Your task to perform on an android device: Search for seafood restaurants on Google Maps Image 0: 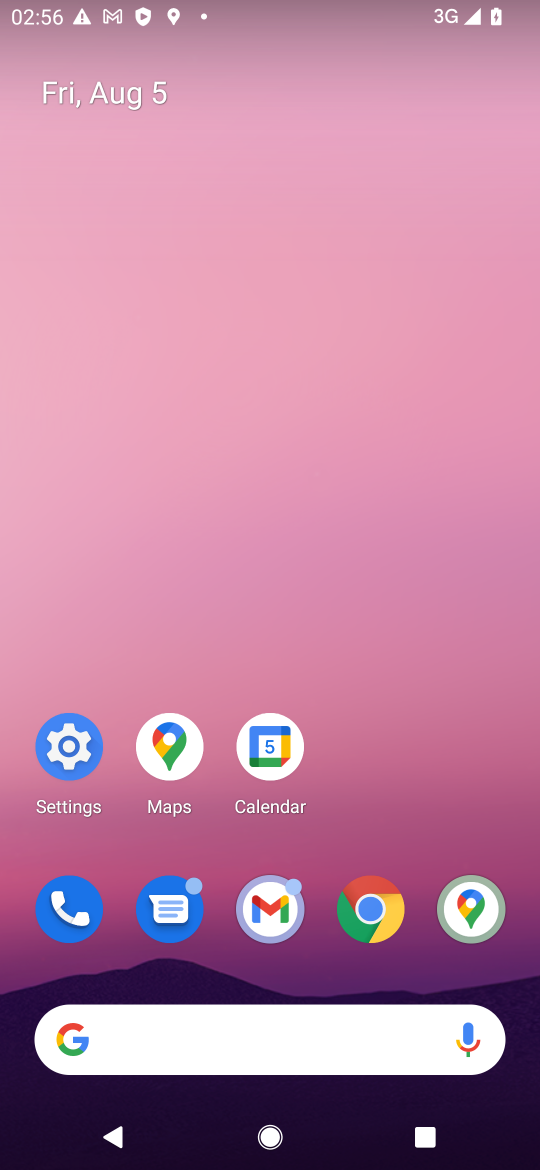
Step 0: click (155, 742)
Your task to perform on an android device: Search for seafood restaurants on Google Maps Image 1: 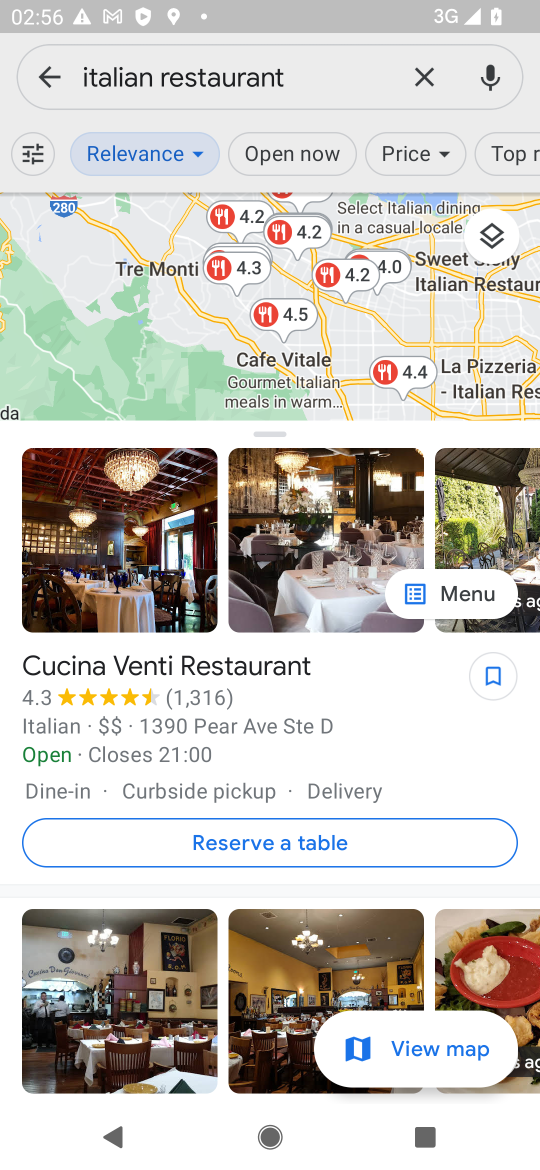
Step 1: click (49, 73)
Your task to perform on an android device: Search for seafood restaurants on Google Maps Image 2: 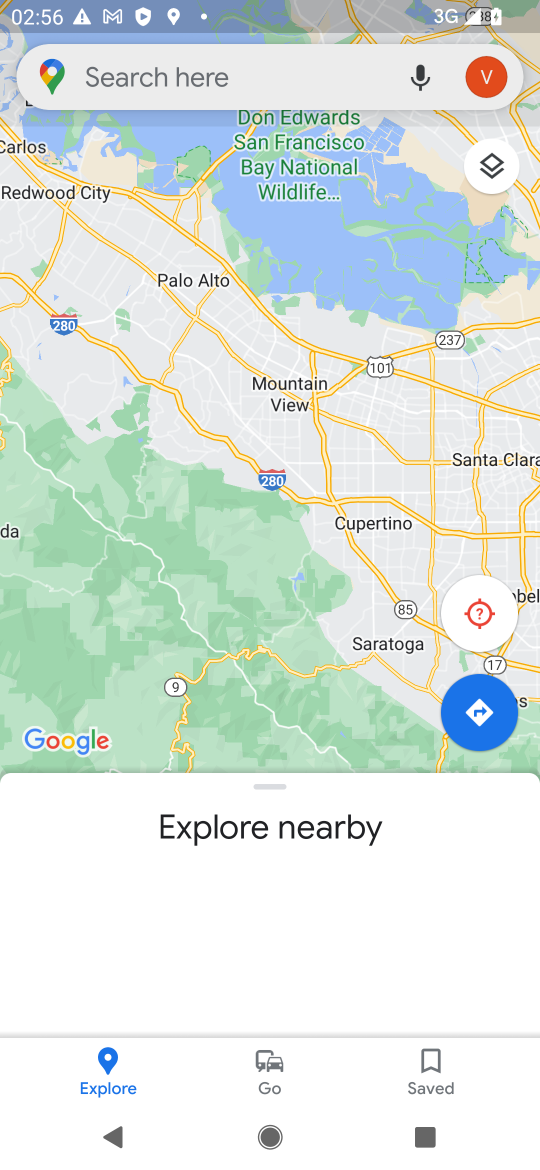
Step 2: click (287, 72)
Your task to perform on an android device: Search for seafood restaurants on Google Maps Image 3: 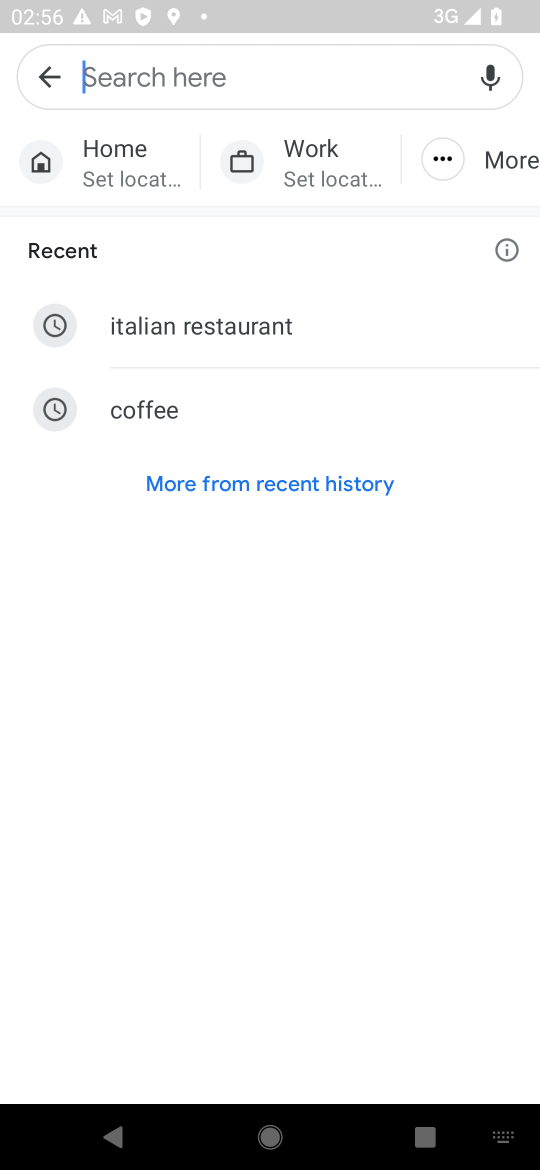
Step 3: type "seafood"
Your task to perform on an android device: Search for seafood restaurants on Google Maps Image 4: 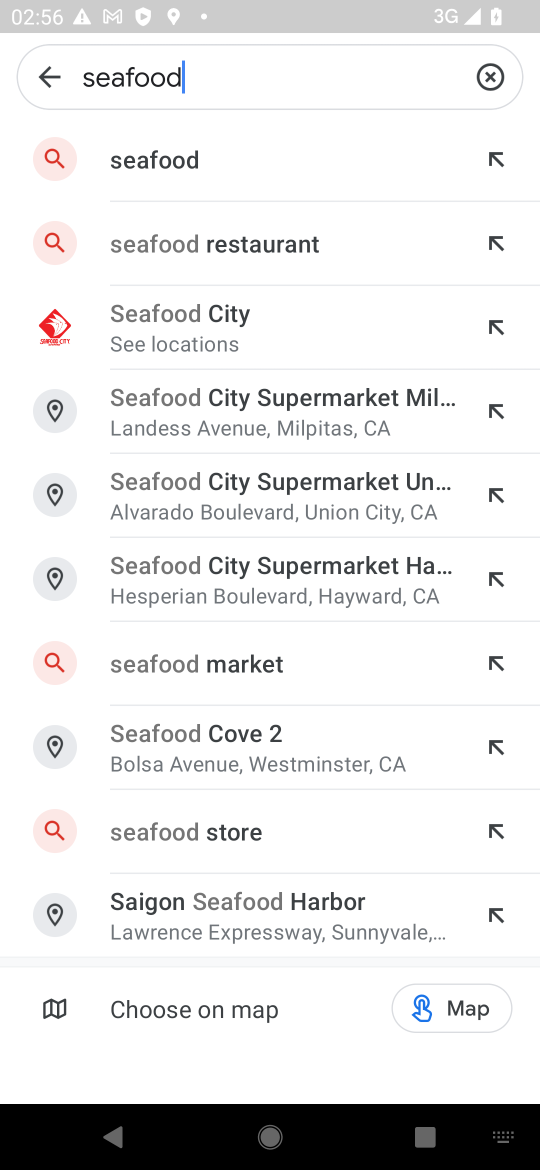
Step 4: click (173, 234)
Your task to perform on an android device: Search for seafood restaurants on Google Maps Image 5: 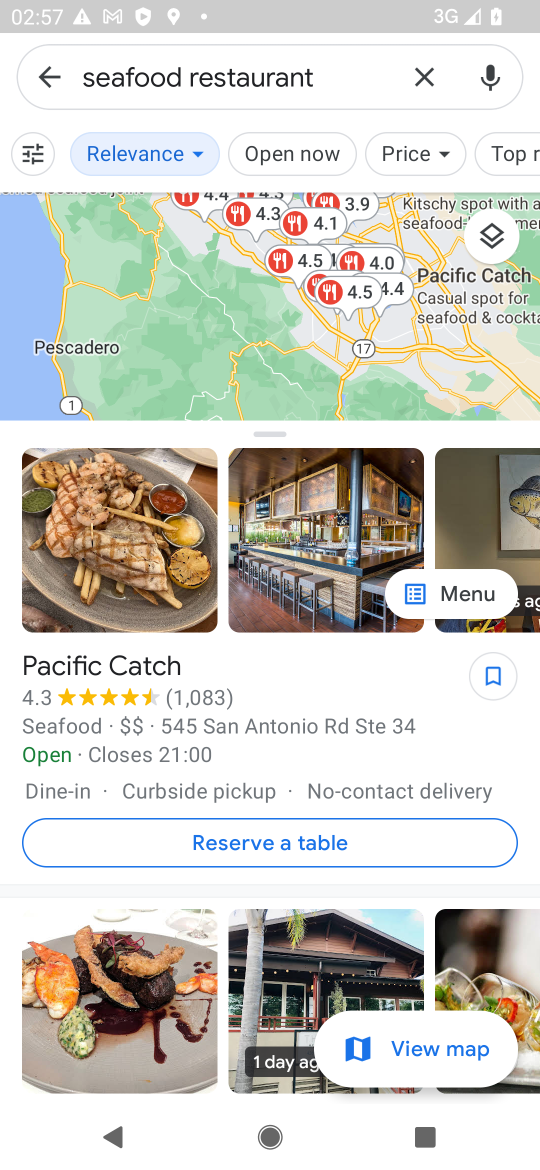
Step 5: task complete